Your task to perform on an android device: turn off location history Image 0: 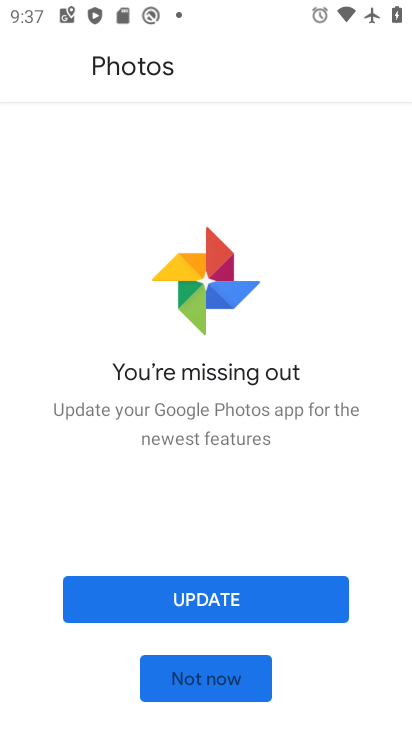
Step 0: press home button
Your task to perform on an android device: turn off location history Image 1: 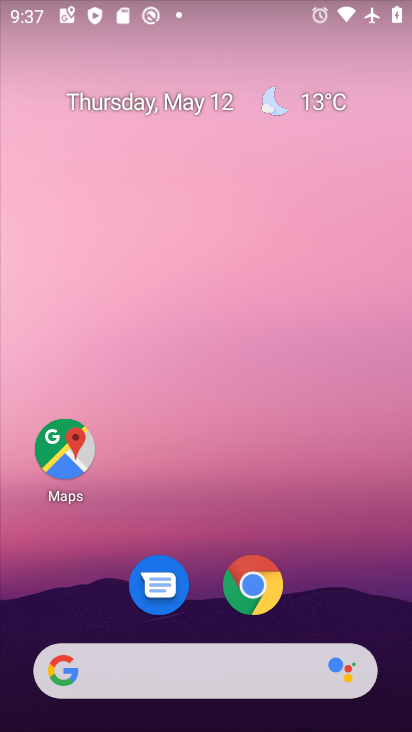
Step 1: drag from (227, 473) to (229, 43)
Your task to perform on an android device: turn off location history Image 2: 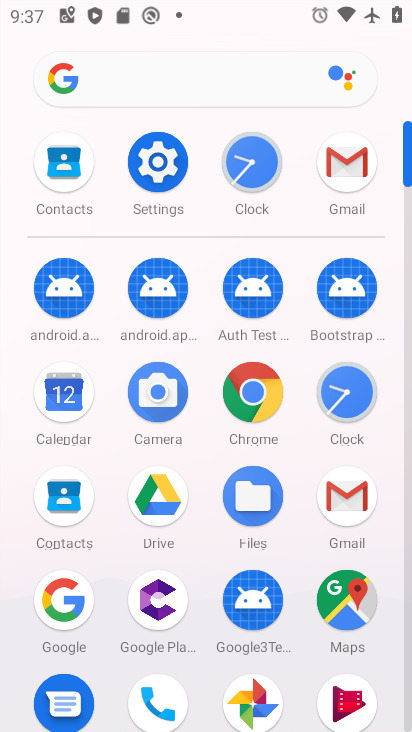
Step 2: click (146, 153)
Your task to perform on an android device: turn off location history Image 3: 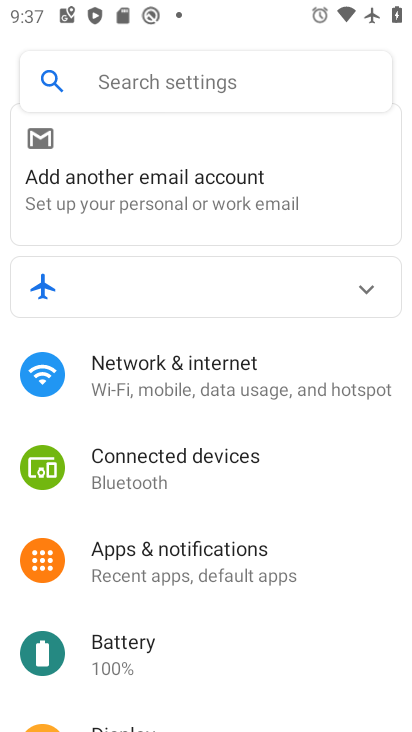
Step 3: drag from (194, 507) to (180, 0)
Your task to perform on an android device: turn off location history Image 4: 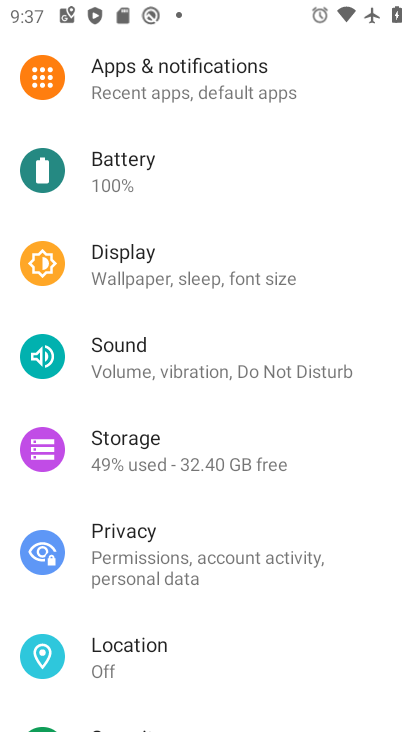
Step 4: click (219, 668)
Your task to perform on an android device: turn off location history Image 5: 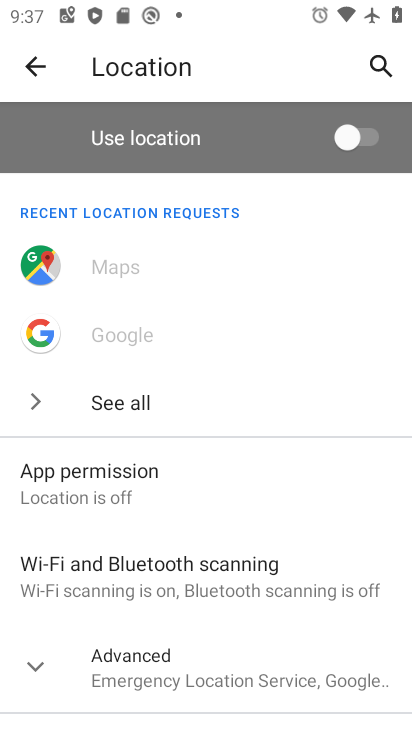
Step 5: drag from (266, 499) to (266, 389)
Your task to perform on an android device: turn off location history Image 6: 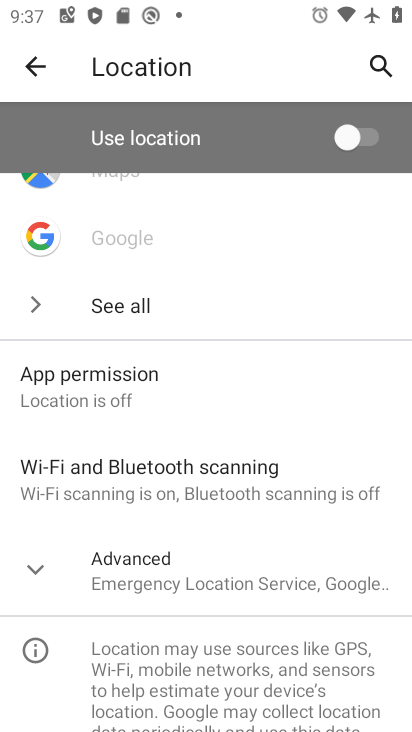
Step 6: click (39, 559)
Your task to perform on an android device: turn off location history Image 7: 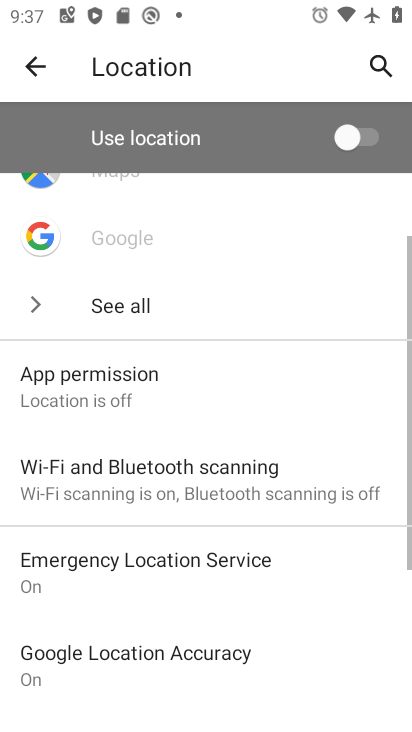
Step 7: drag from (223, 596) to (251, 272)
Your task to perform on an android device: turn off location history Image 8: 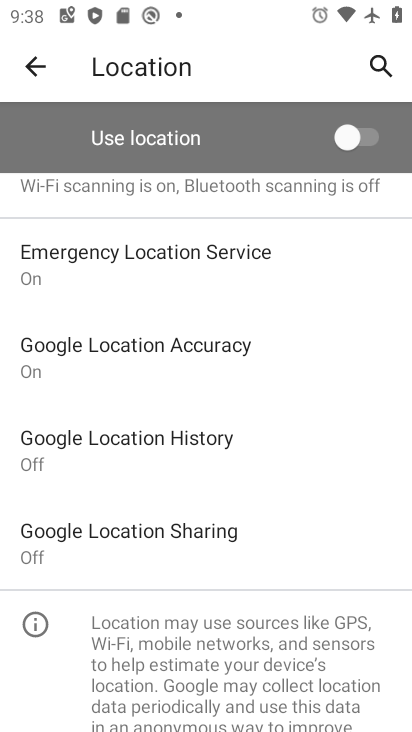
Step 8: click (187, 456)
Your task to perform on an android device: turn off location history Image 9: 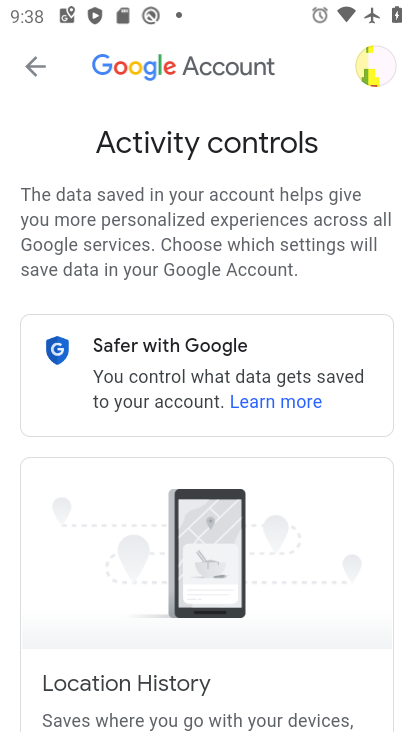
Step 9: task complete